Your task to perform on an android device: Is it going to rain today? Image 0: 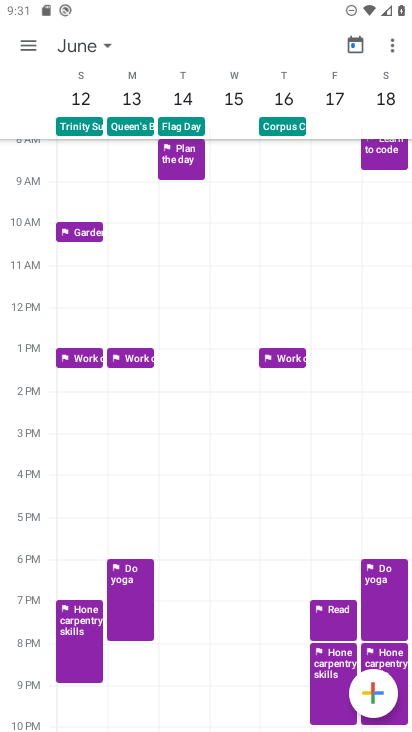
Step 0: press home button
Your task to perform on an android device: Is it going to rain today? Image 1: 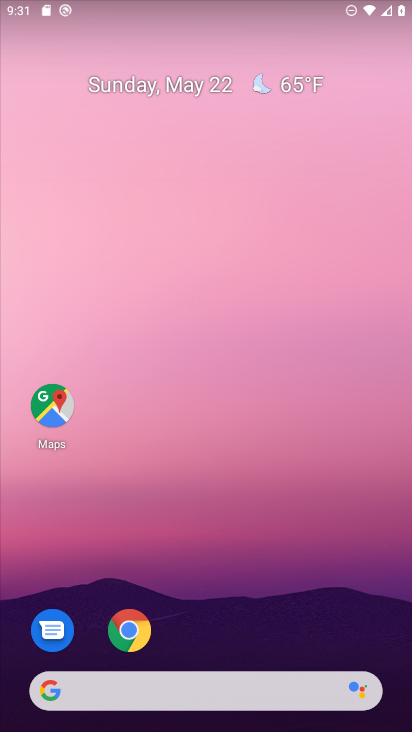
Step 1: click (56, 690)
Your task to perform on an android device: Is it going to rain today? Image 2: 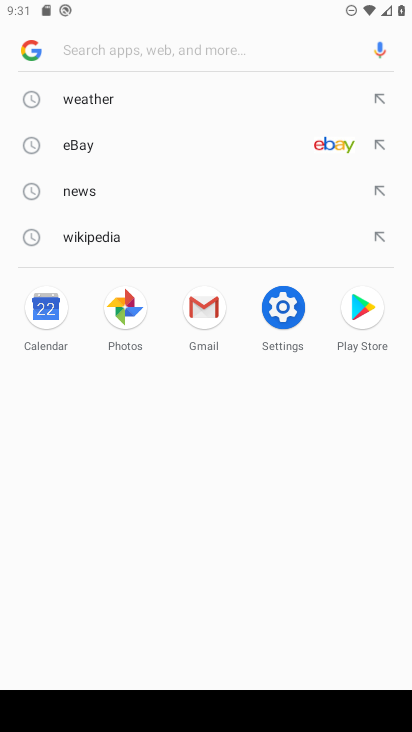
Step 2: click (108, 93)
Your task to perform on an android device: Is it going to rain today? Image 3: 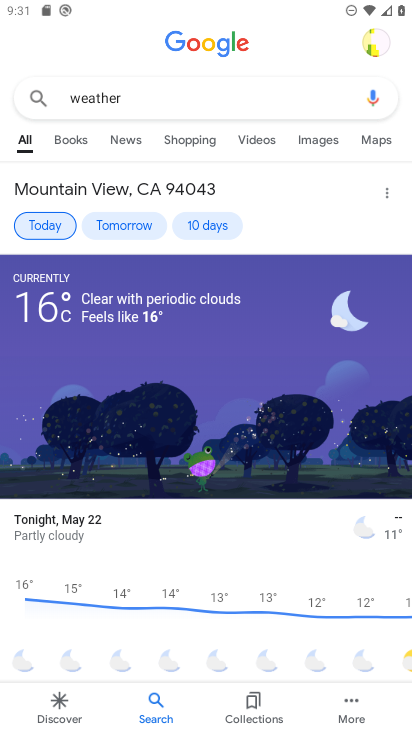
Step 3: task complete